Your task to perform on an android device: Open Google Image 0: 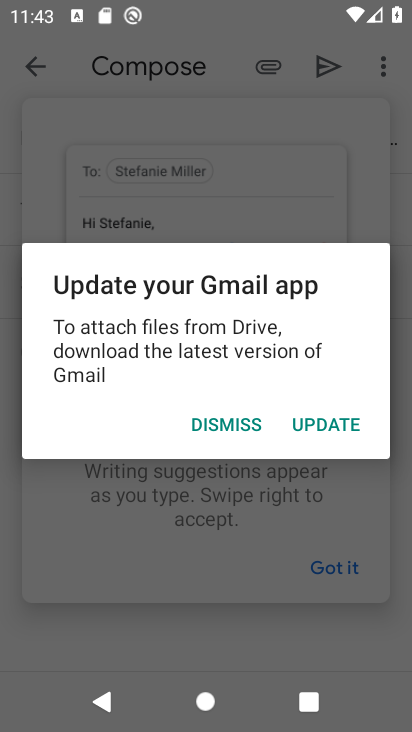
Step 0: press home button
Your task to perform on an android device: Open Google Image 1: 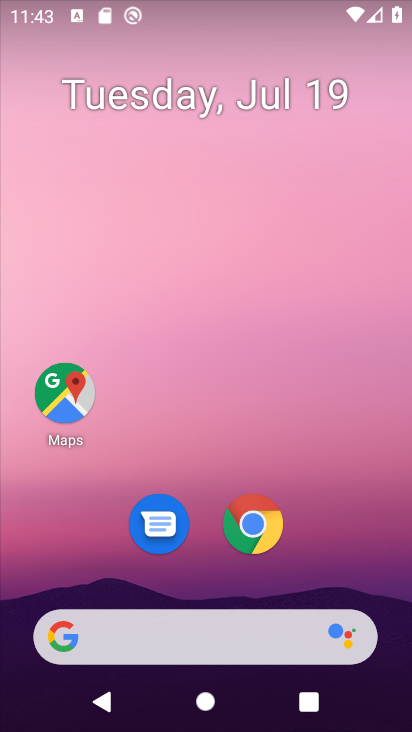
Step 1: drag from (209, 445) to (212, 85)
Your task to perform on an android device: Open Google Image 2: 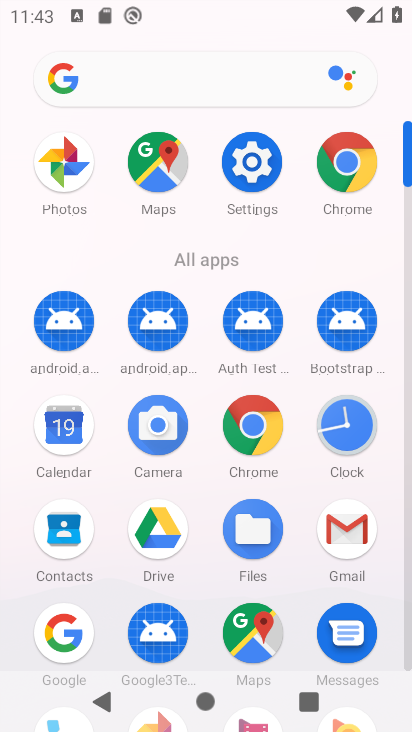
Step 2: click (62, 611)
Your task to perform on an android device: Open Google Image 3: 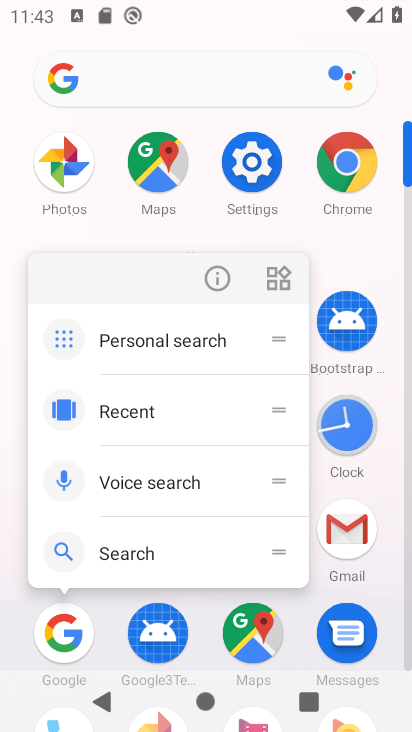
Step 3: click (57, 644)
Your task to perform on an android device: Open Google Image 4: 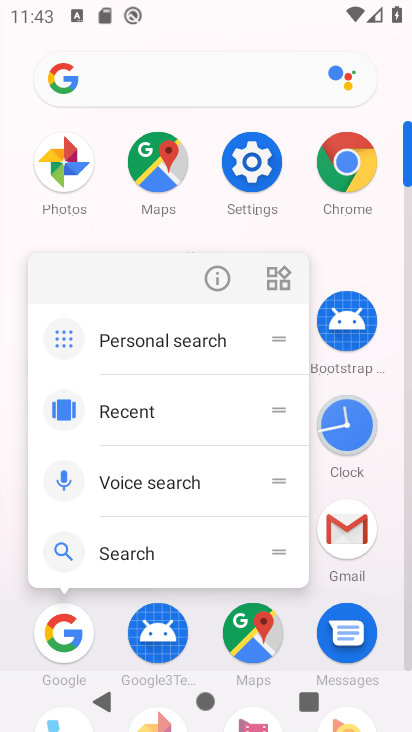
Step 4: click (70, 619)
Your task to perform on an android device: Open Google Image 5: 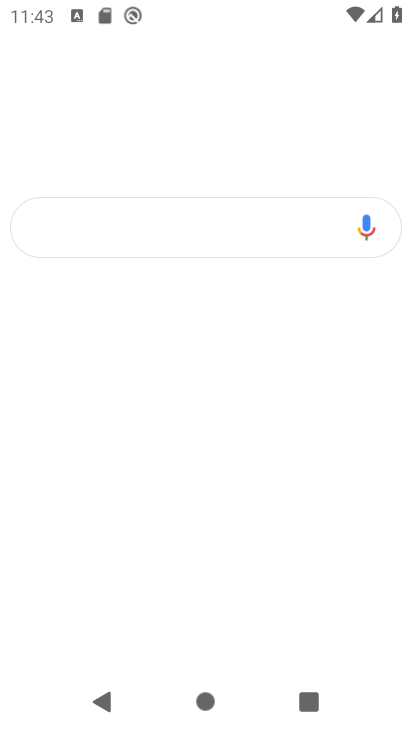
Step 5: click (70, 620)
Your task to perform on an android device: Open Google Image 6: 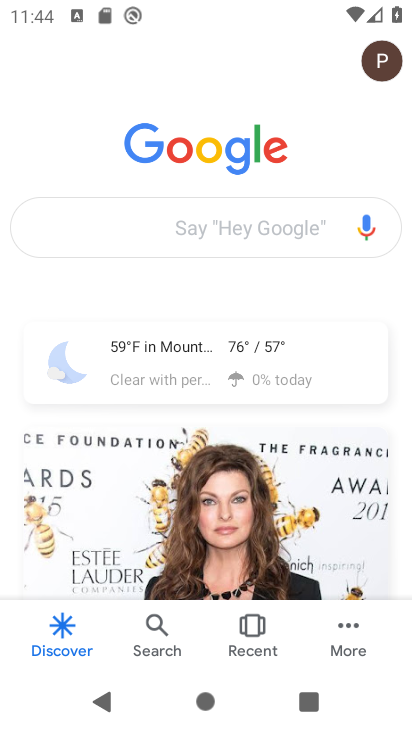
Step 6: task complete